Your task to perform on an android device: change the upload size in google photos Image 0: 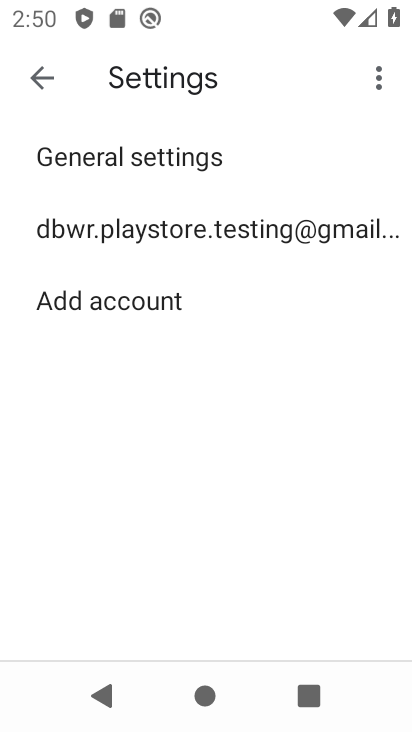
Step 0: press home button
Your task to perform on an android device: change the upload size in google photos Image 1: 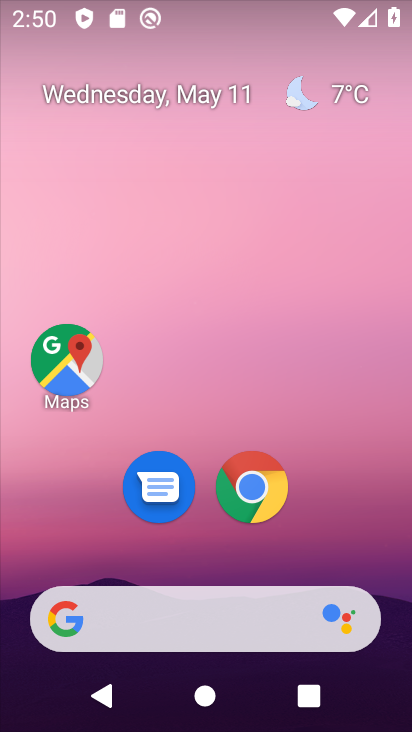
Step 1: drag from (249, 623) to (234, 77)
Your task to perform on an android device: change the upload size in google photos Image 2: 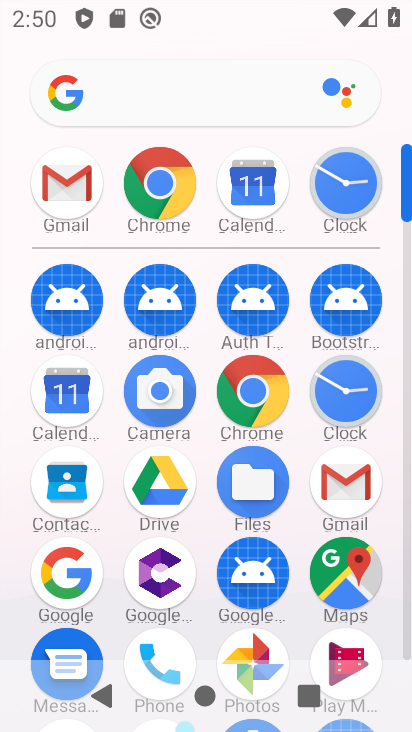
Step 2: drag from (291, 609) to (297, 318)
Your task to perform on an android device: change the upload size in google photos Image 3: 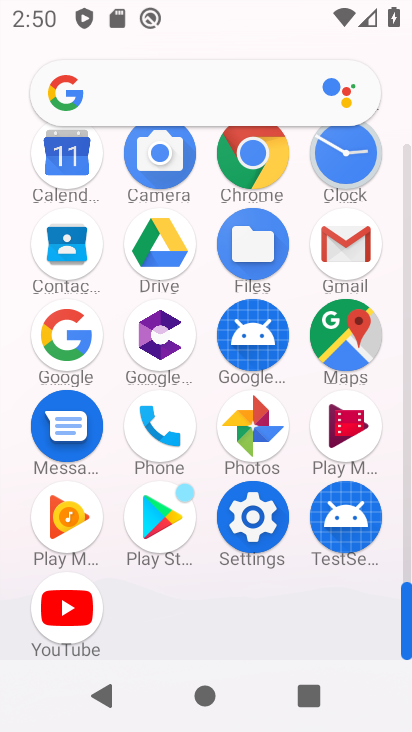
Step 3: click (271, 431)
Your task to perform on an android device: change the upload size in google photos Image 4: 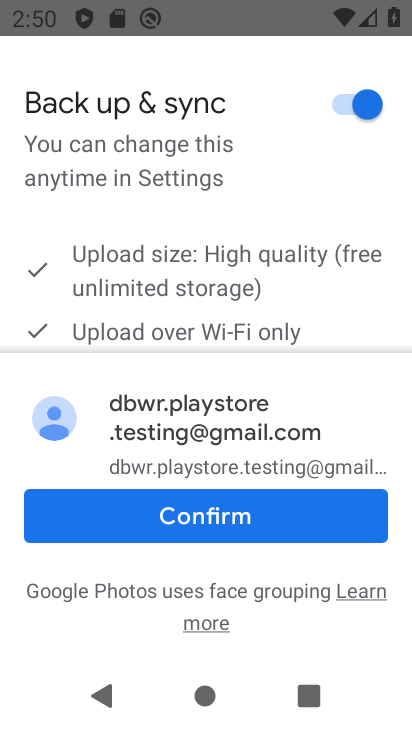
Step 4: click (223, 533)
Your task to perform on an android device: change the upload size in google photos Image 5: 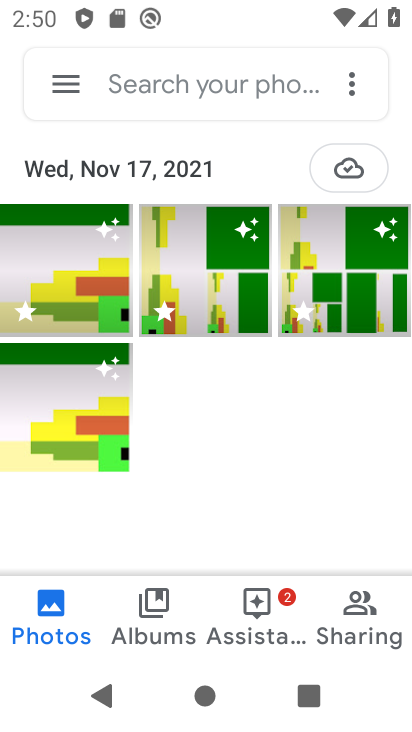
Step 5: click (60, 92)
Your task to perform on an android device: change the upload size in google photos Image 6: 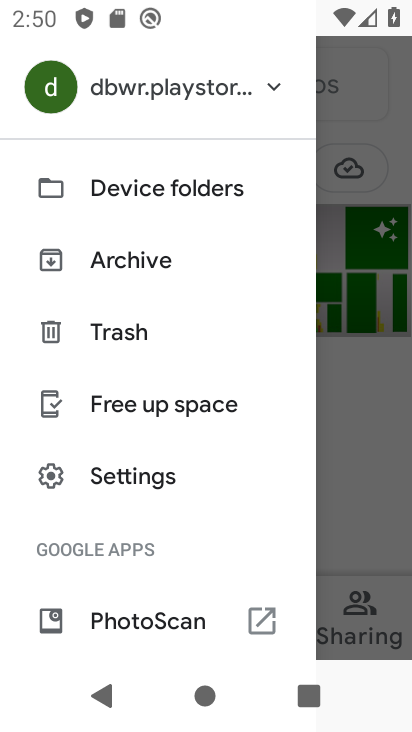
Step 6: drag from (174, 633) to (226, 134)
Your task to perform on an android device: change the upload size in google photos Image 7: 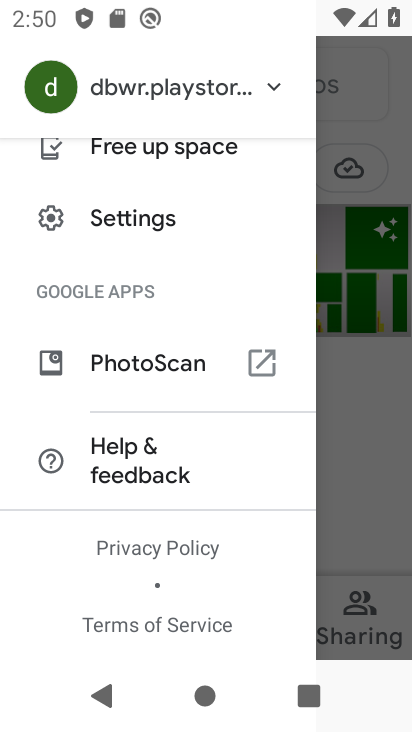
Step 7: drag from (206, 243) to (214, 666)
Your task to perform on an android device: change the upload size in google photos Image 8: 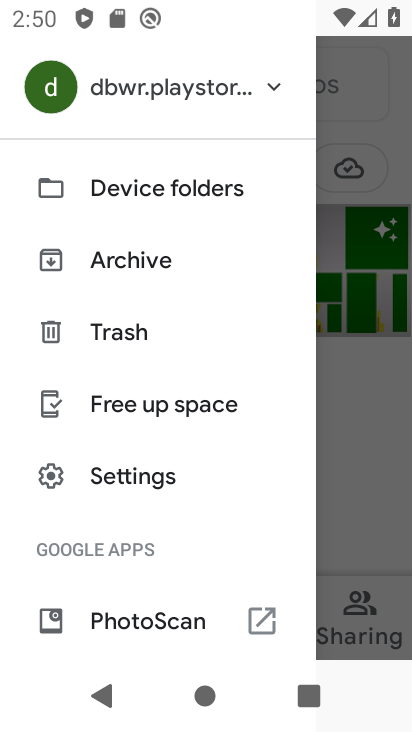
Step 8: click (168, 470)
Your task to perform on an android device: change the upload size in google photos Image 9: 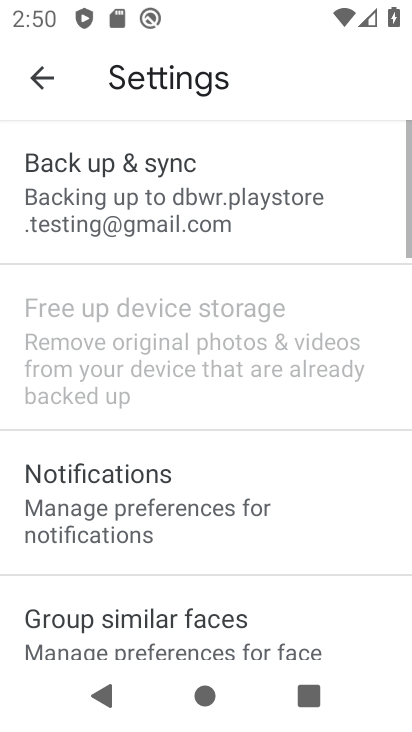
Step 9: click (228, 194)
Your task to perform on an android device: change the upload size in google photos Image 10: 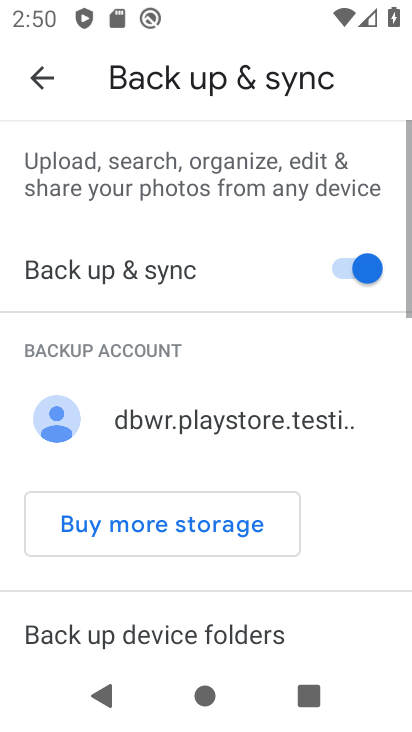
Step 10: drag from (219, 605) to (211, 121)
Your task to perform on an android device: change the upload size in google photos Image 11: 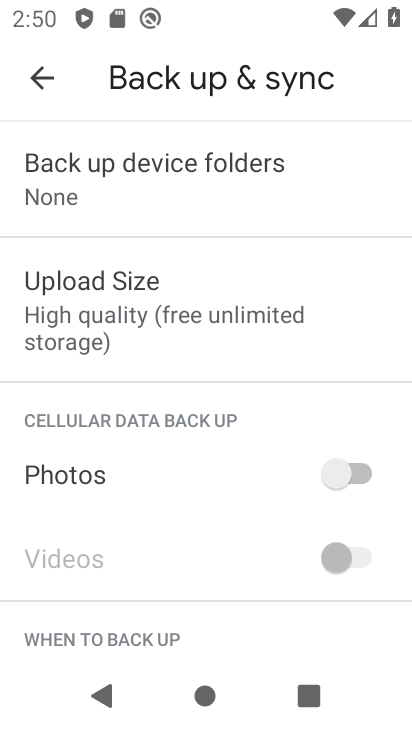
Step 11: click (188, 320)
Your task to perform on an android device: change the upload size in google photos Image 12: 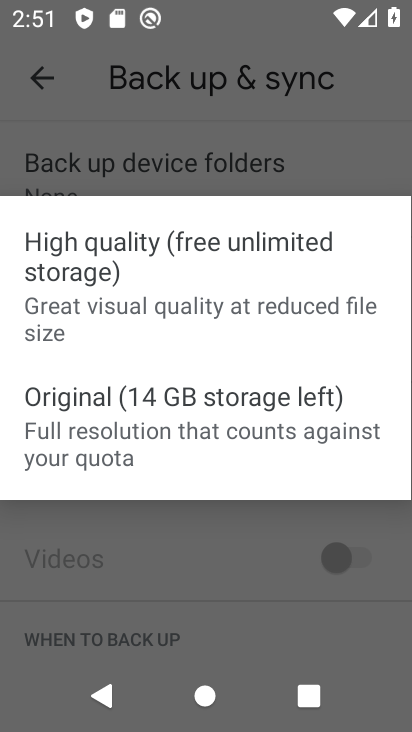
Step 12: click (227, 564)
Your task to perform on an android device: change the upload size in google photos Image 13: 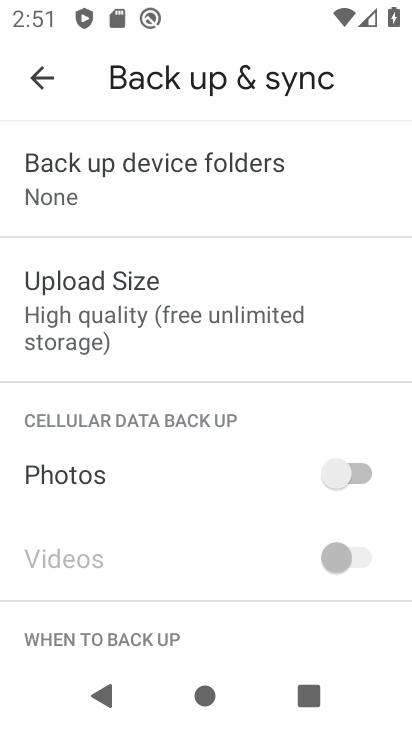
Step 13: click (145, 345)
Your task to perform on an android device: change the upload size in google photos Image 14: 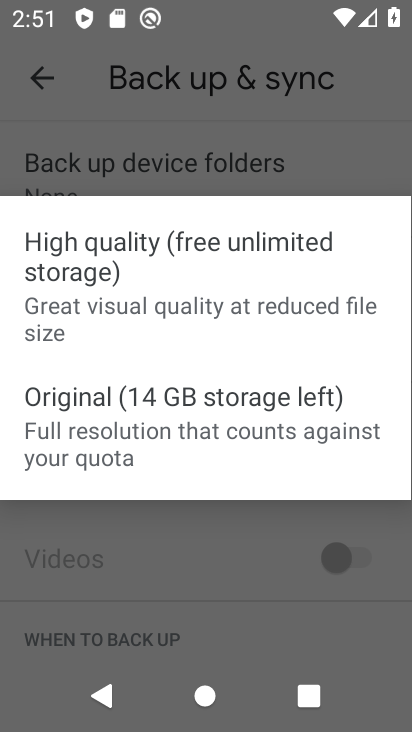
Step 14: click (137, 439)
Your task to perform on an android device: change the upload size in google photos Image 15: 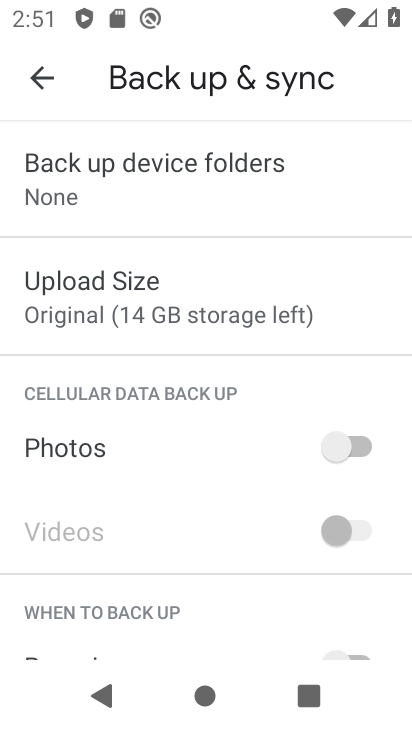
Step 15: task complete